Your task to perform on an android device: Go to wifi settings Image 0: 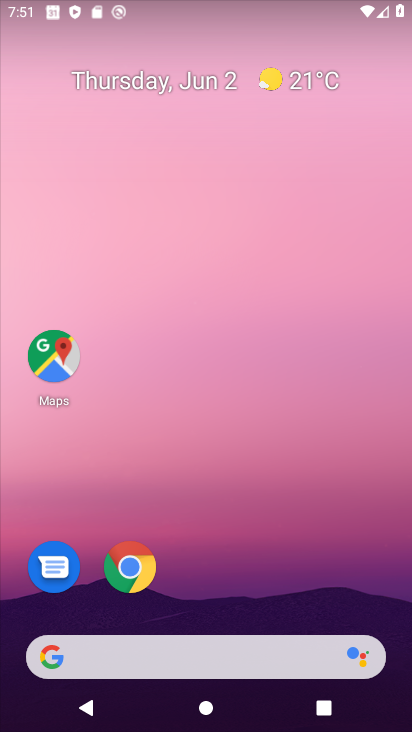
Step 0: drag from (379, 610) to (244, 0)
Your task to perform on an android device: Go to wifi settings Image 1: 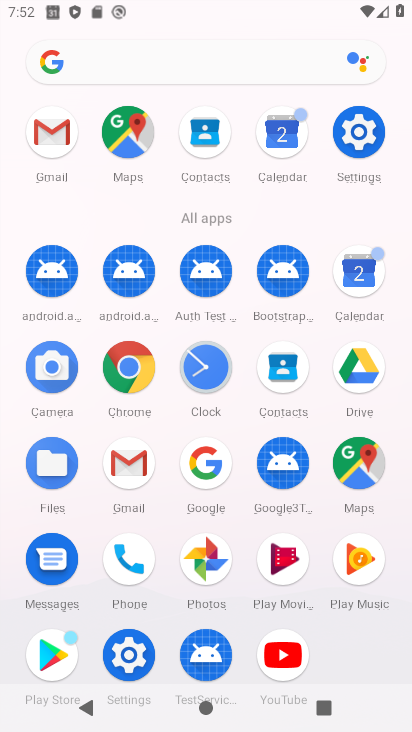
Step 1: click (126, 654)
Your task to perform on an android device: Go to wifi settings Image 2: 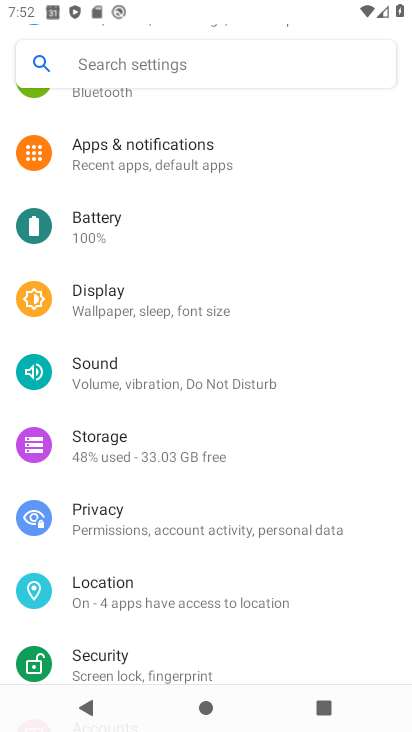
Step 2: drag from (327, 167) to (352, 570)
Your task to perform on an android device: Go to wifi settings Image 3: 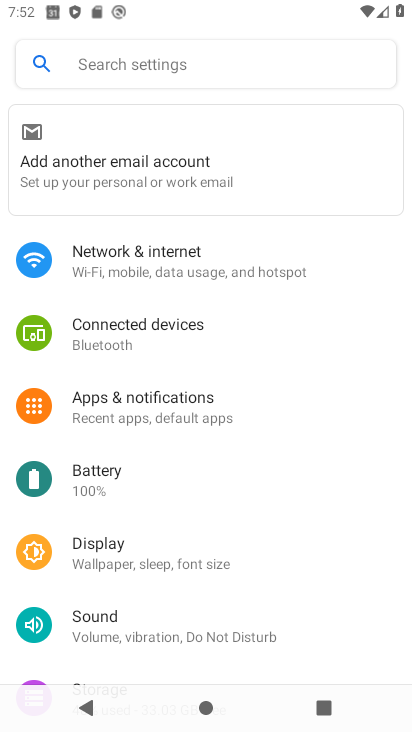
Step 3: click (123, 246)
Your task to perform on an android device: Go to wifi settings Image 4: 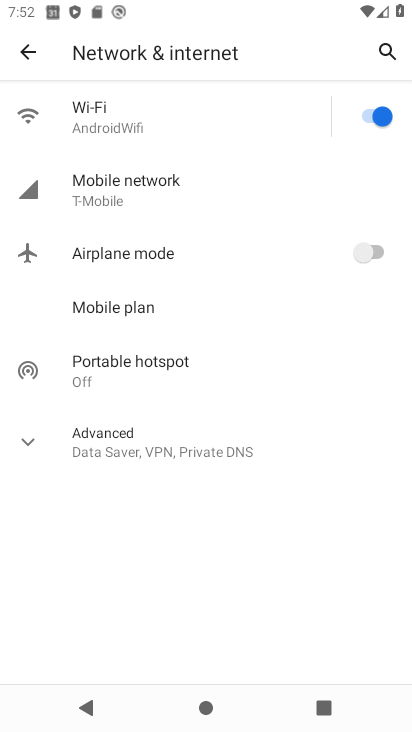
Step 4: click (88, 122)
Your task to perform on an android device: Go to wifi settings Image 5: 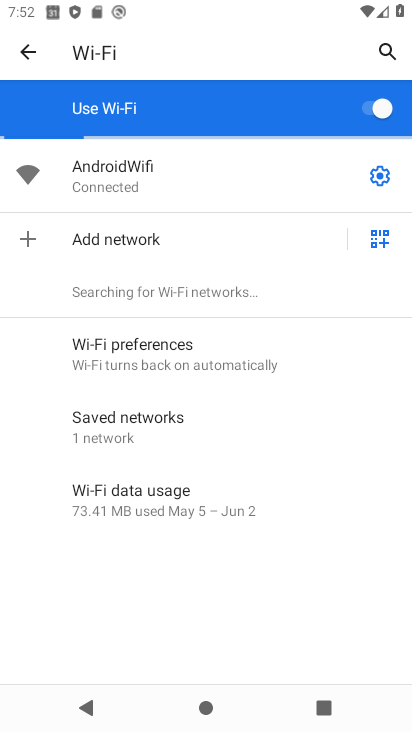
Step 5: click (380, 176)
Your task to perform on an android device: Go to wifi settings Image 6: 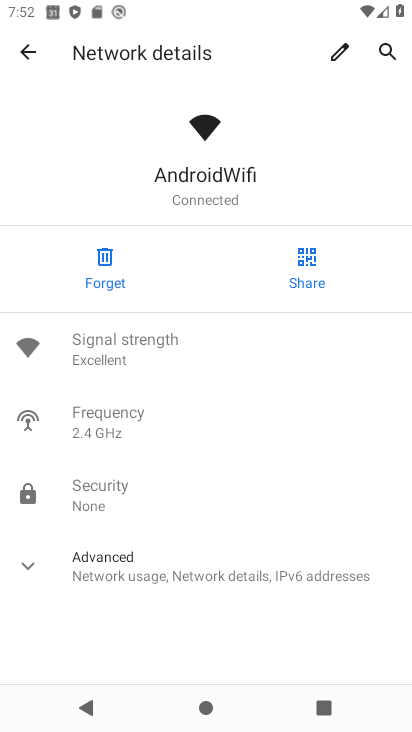
Step 6: click (21, 567)
Your task to perform on an android device: Go to wifi settings Image 7: 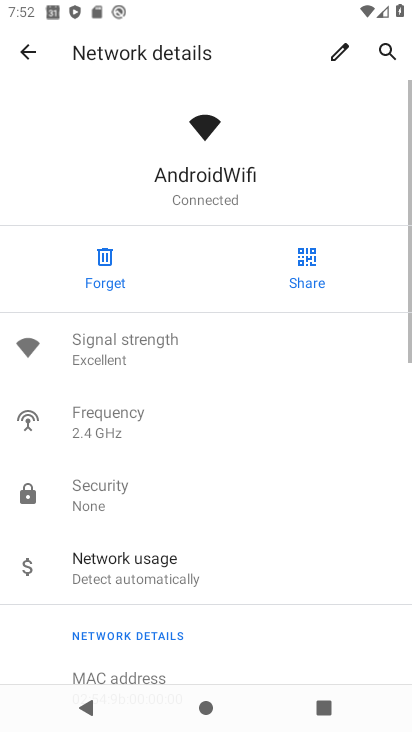
Step 7: task complete